Your task to perform on an android device: Open privacy settings Image 0: 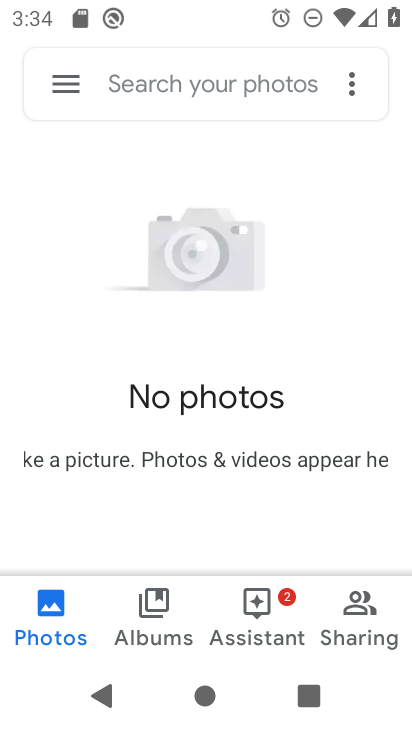
Step 0: press home button
Your task to perform on an android device: Open privacy settings Image 1: 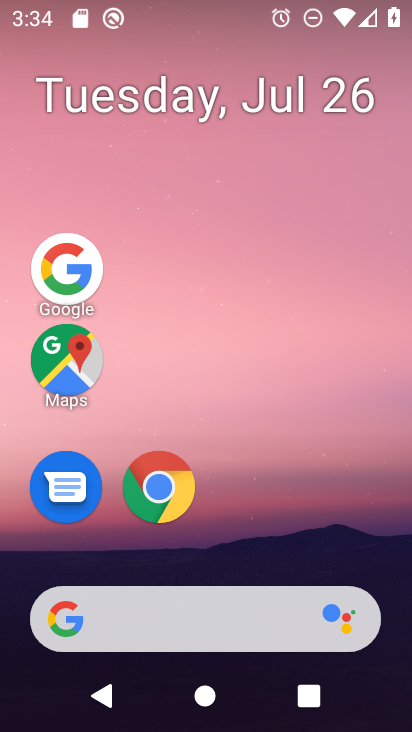
Step 1: drag from (206, 643) to (187, 255)
Your task to perform on an android device: Open privacy settings Image 2: 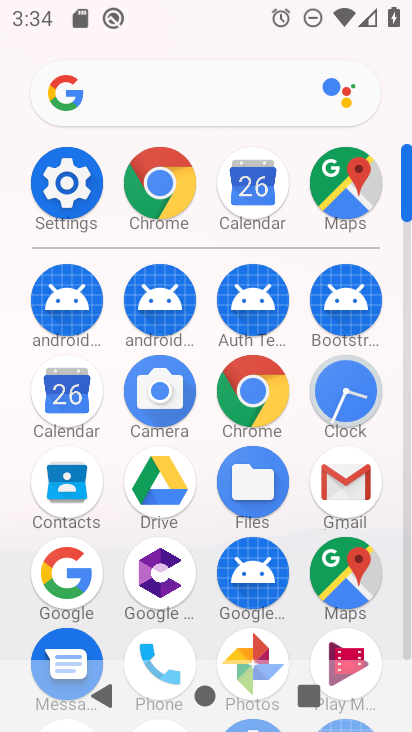
Step 2: click (74, 217)
Your task to perform on an android device: Open privacy settings Image 3: 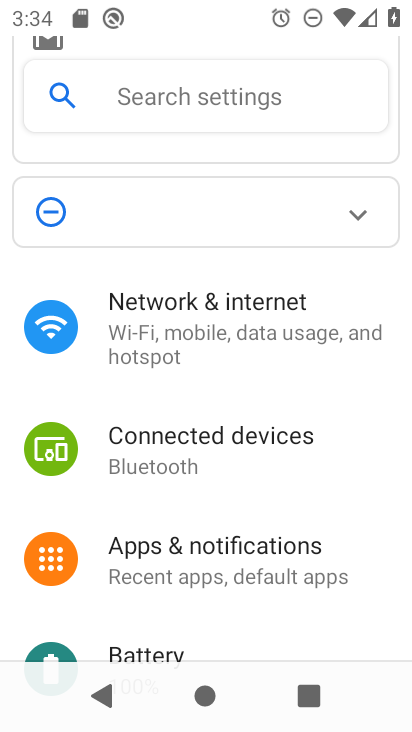
Step 3: drag from (187, 544) to (259, 161)
Your task to perform on an android device: Open privacy settings Image 4: 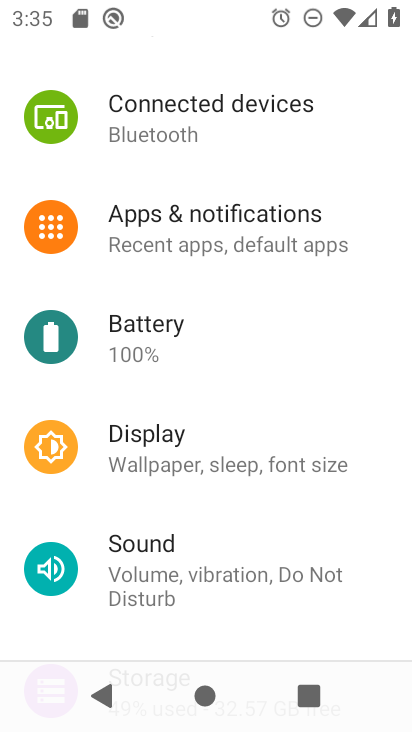
Step 4: drag from (249, 560) to (245, 247)
Your task to perform on an android device: Open privacy settings Image 5: 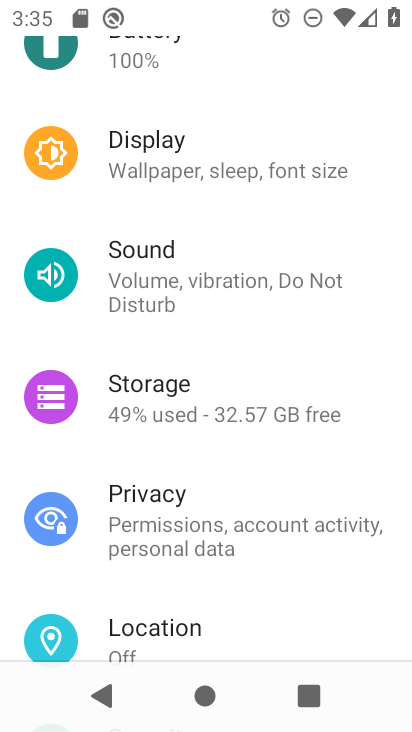
Step 5: click (197, 507)
Your task to perform on an android device: Open privacy settings Image 6: 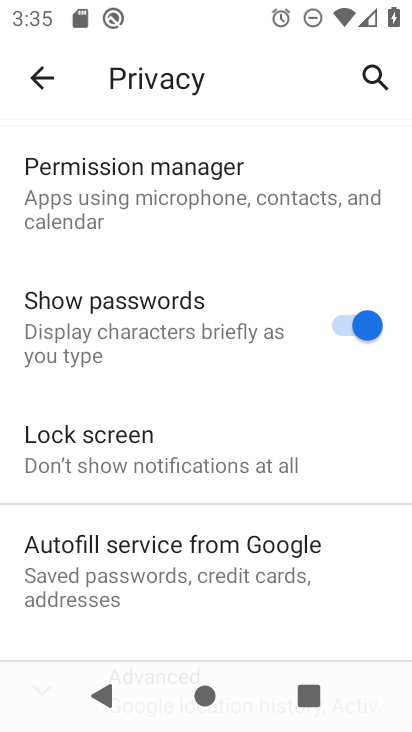
Step 6: task complete